Your task to perform on an android device: Go to display settings Image 0: 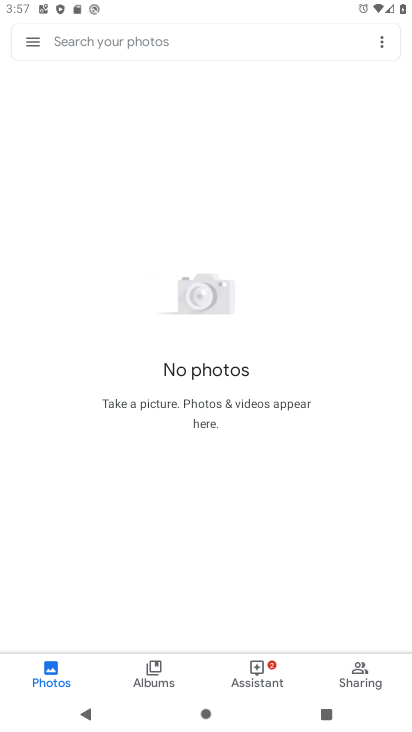
Step 0: click (19, 33)
Your task to perform on an android device: Go to display settings Image 1: 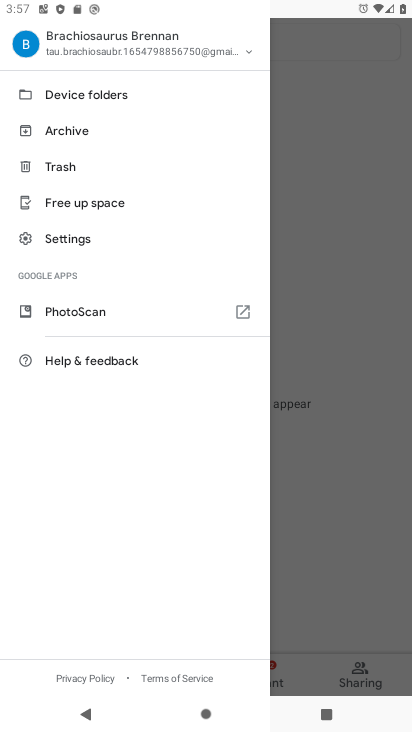
Step 1: click (354, 314)
Your task to perform on an android device: Go to display settings Image 2: 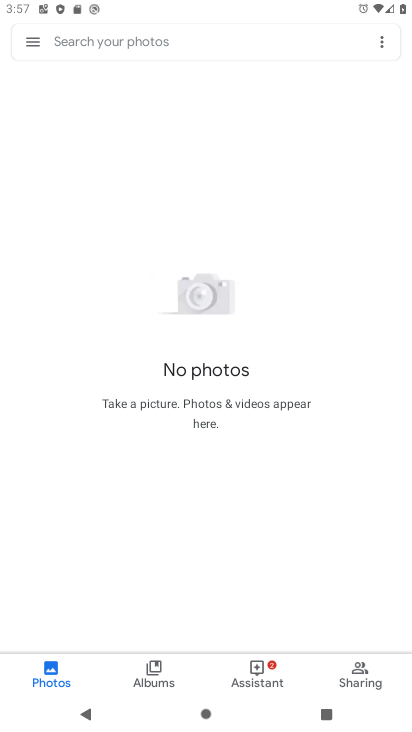
Step 2: press home button
Your task to perform on an android device: Go to display settings Image 3: 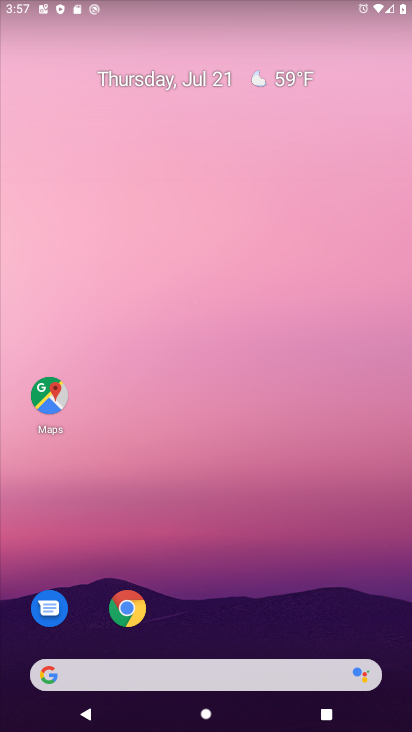
Step 3: drag from (268, 675) to (310, 118)
Your task to perform on an android device: Go to display settings Image 4: 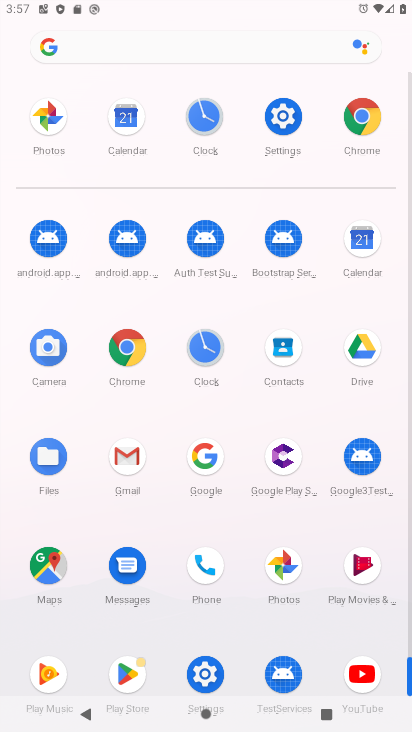
Step 4: click (290, 122)
Your task to perform on an android device: Go to display settings Image 5: 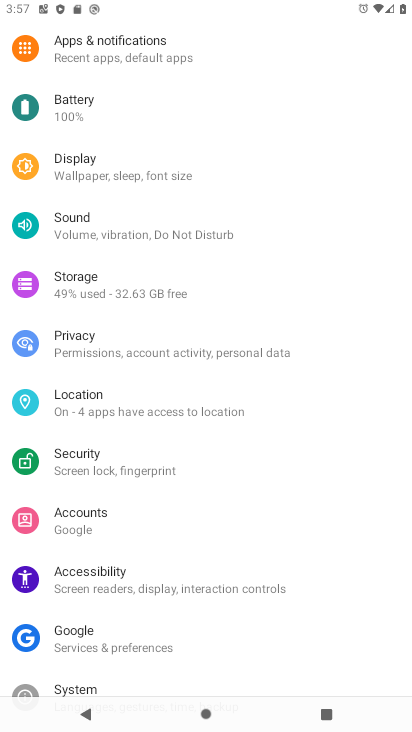
Step 5: click (122, 176)
Your task to perform on an android device: Go to display settings Image 6: 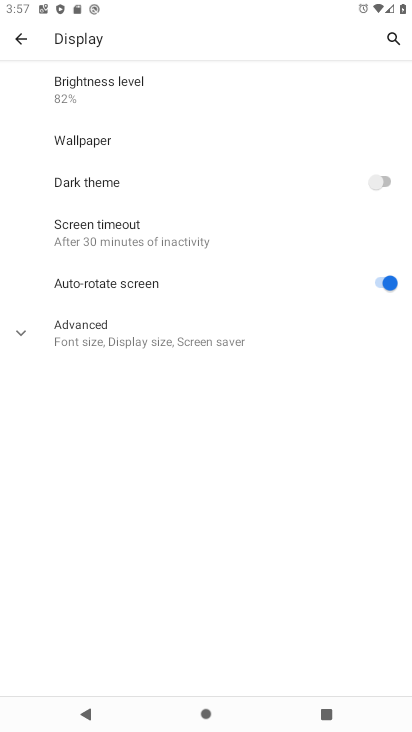
Step 6: task complete